Your task to perform on an android device: toggle notifications settings in the gmail app Image 0: 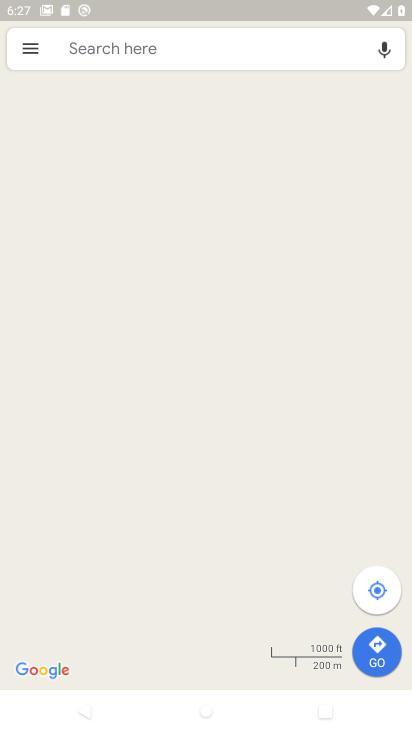
Step 0: press home button
Your task to perform on an android device: toggle notifications settings in the gmail app Image 1: 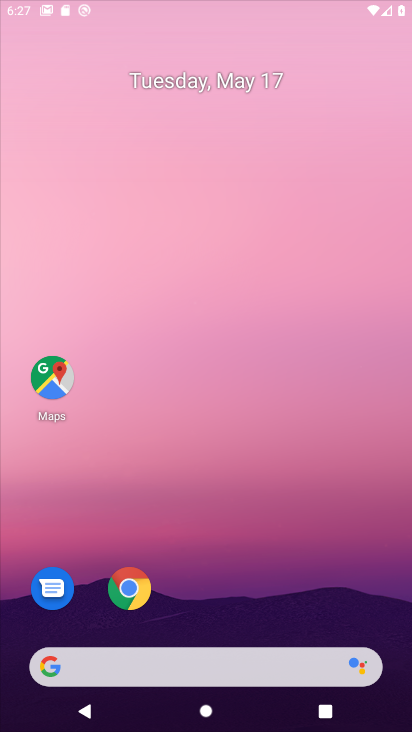
Step 1: drag from (406, 671) to (285, 82)
Your task to perform on an android device: toggle notifications settings in the gmail app Image 2: 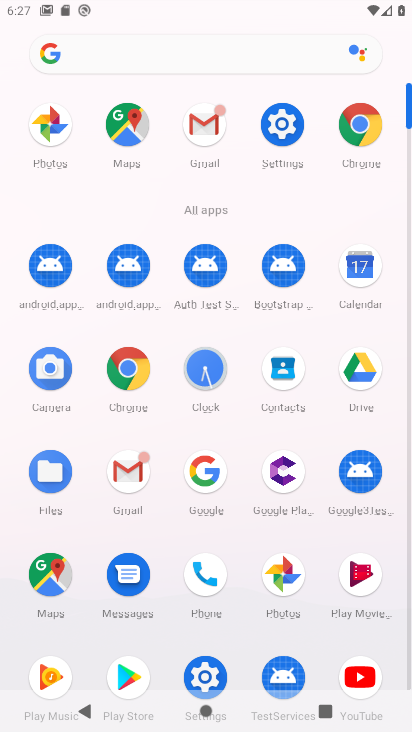
Step 2: click (127, 479)
Your task to perform on an android device: toggle notifications settings in the gmail app Image 3: 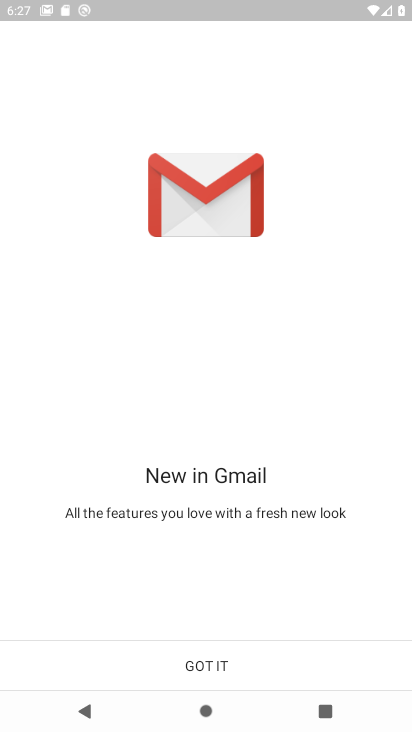
Step 3: click (241, 652)
Your task to perform on an android device: toggle notifications settings in the gmail app Image 4: 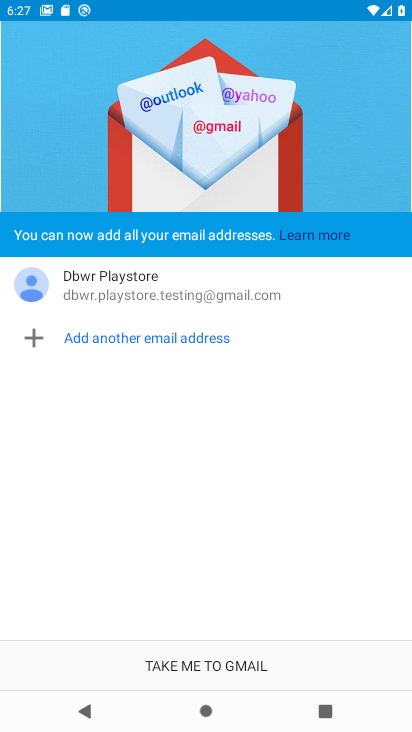
Step 4: click (241, 652)
Your task to perform on an android device: toggle notifications settings in the gmail app Image 5: 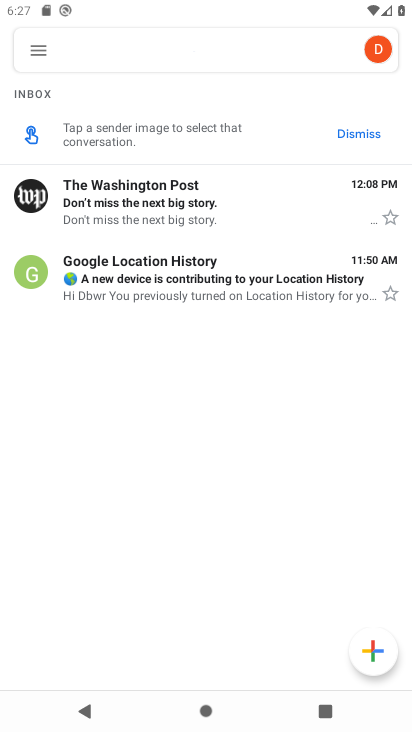
Step 5: click (33, 49)
Your task to perform on an android device: toggle notifications settings in the gmail app Image 6: 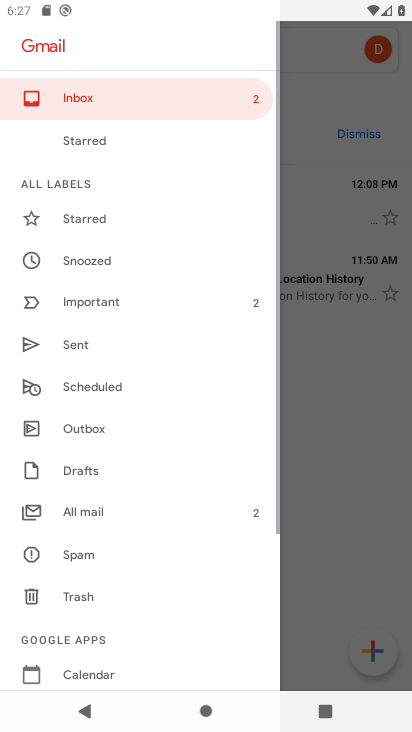
Step 6: drag from (103, 660) to (118, 181)
Your task to perform on an android device: toggle notifications settings in the gmail app Image 7: 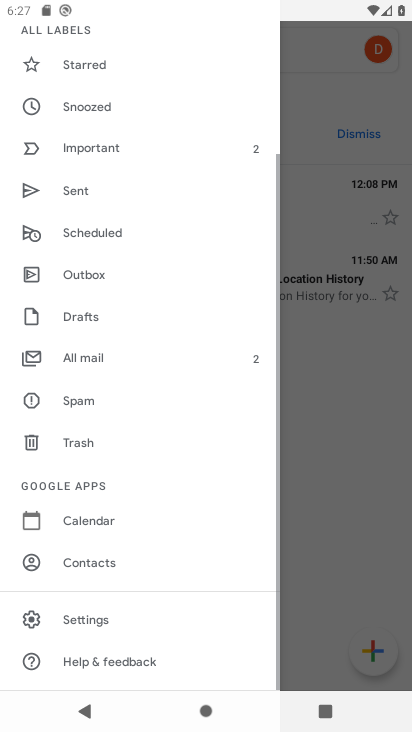
Step 7: click (106, 626)
Your task to perform on an android device: toggle notifications settings in the gmail app Image 8: 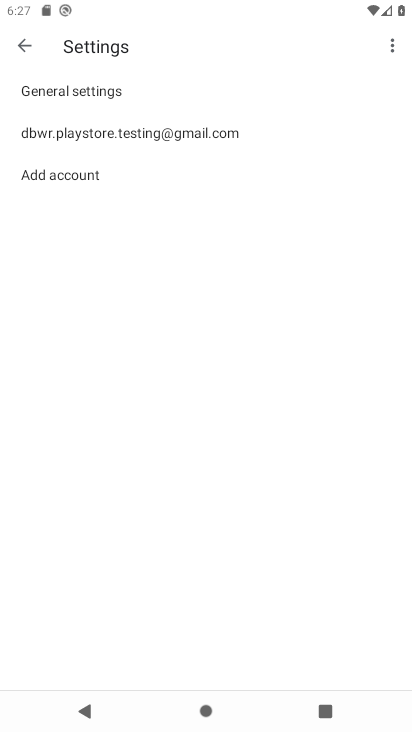
Step 8: click (137, 136)
Your task to perform on an android device: toggle notifications settings in the gmail app Image 9: 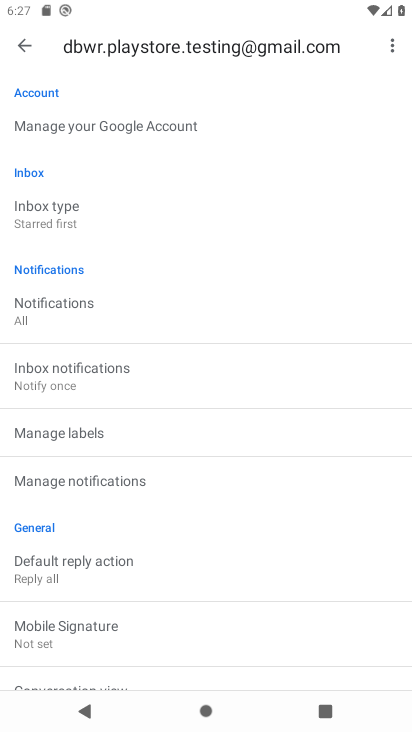
Step 9: click (62, 332)
Your task to perform on an android device: toggle notifications settings in the gmail app Image 10: 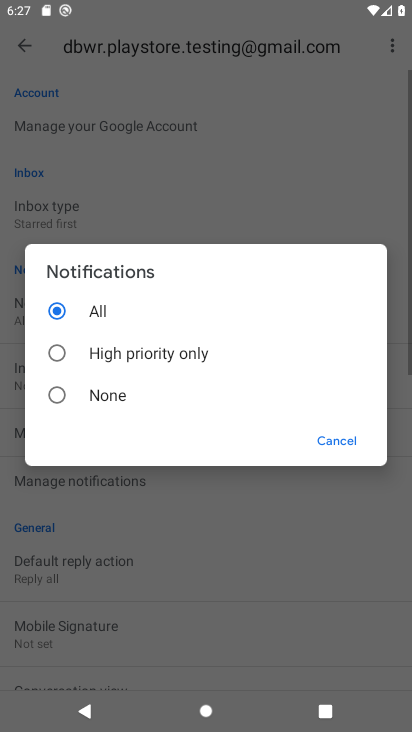
Step 10: click (92, 392)
Your task to perform on an android device: toggle notifications settings in the gmail app Image 11: 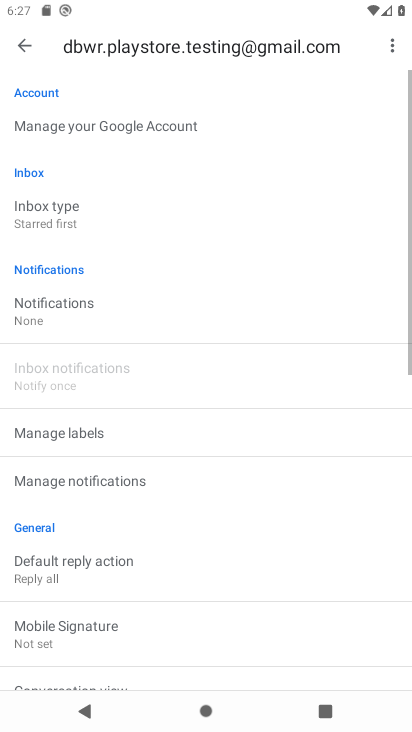
Step 11: task complete